Your task to perform on an android device: empty trash in the gmail app Image 0: 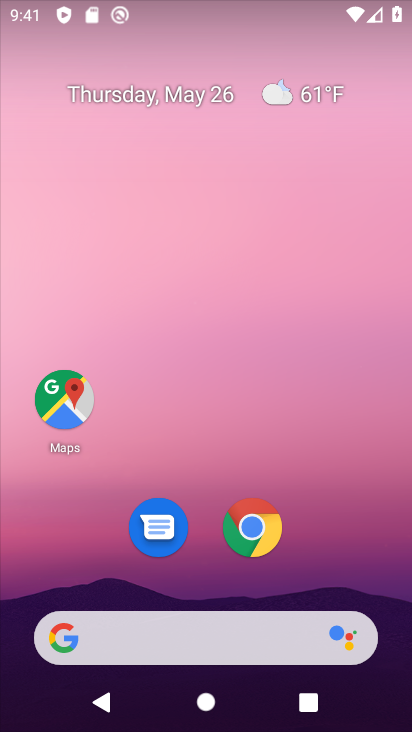
Step 0: drag from (195, 590) to (183, 12)
Your task to perform on an android device: empty trash in the gmail app Image 1: 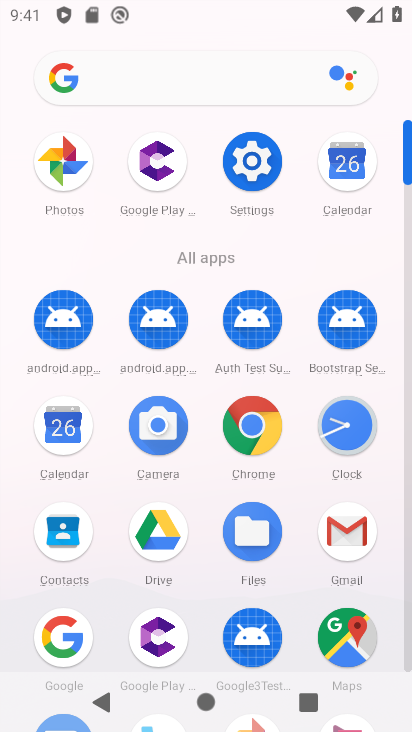
Step 1: click (336, 534)
Your task to perform on an android device: empty trash in the gmail app Image 2: 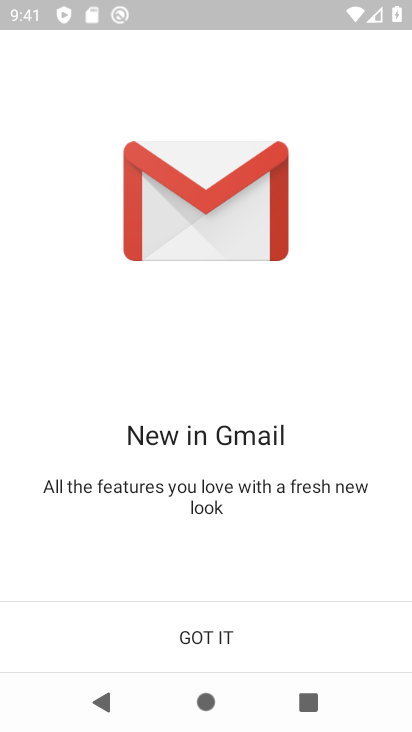
Step 2: click (201, 633)
Your task to perform on an android device: empty trash in the gmail app Image 3: 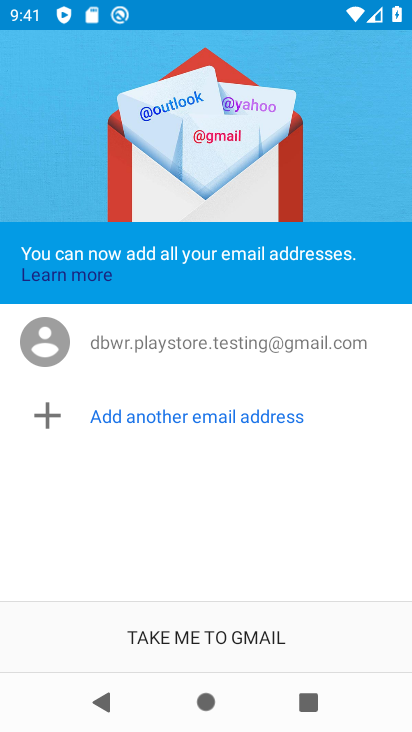
Step 3: click (188, 651)
Your task to perform on an android device: empty trash in the gmail app Image 4: 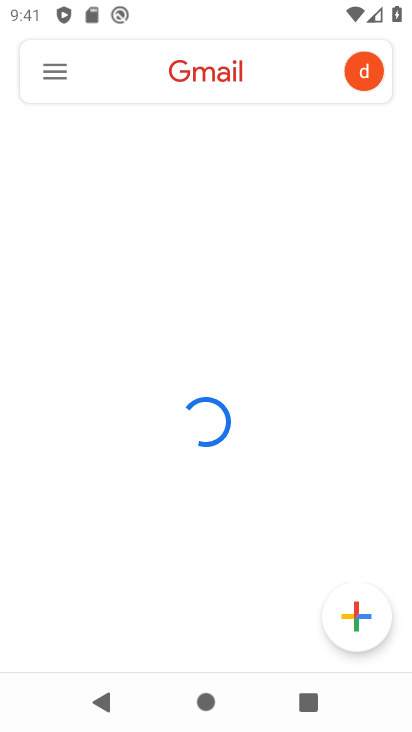
Step 4: click (60, 64)
Your task to perform on an android device: empty trash in the gmail app Image 5: 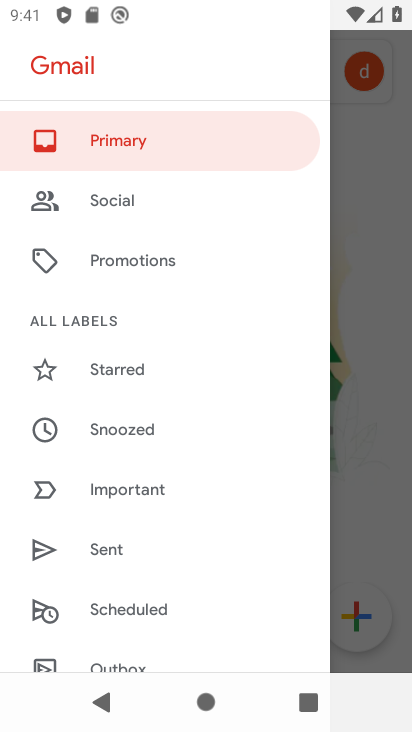
Step 5: drag from (127, 623) to (169, 198)
Your task to perform on an android device: empty trash in the gmail app Image 6: 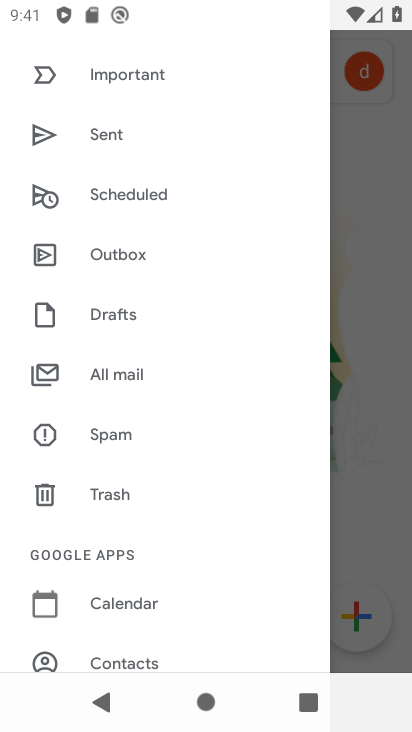
Step 6: click (127, 491)
Your task to perform on an android device: empty trash in the gmail app Image 7: 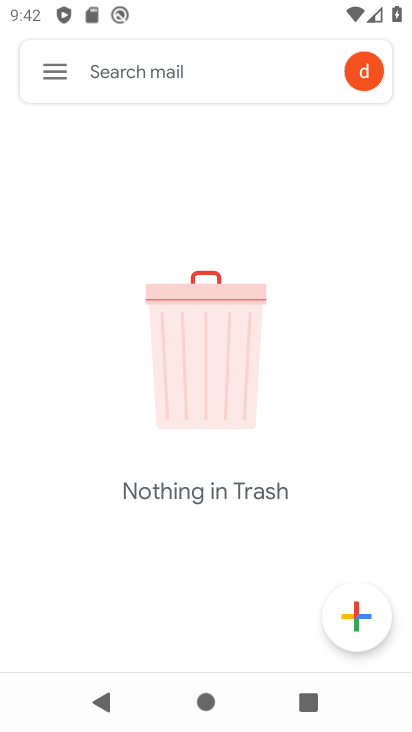
Step 7: task complete